Your task to perform on an android device: open chrome privacy settings Image 0: 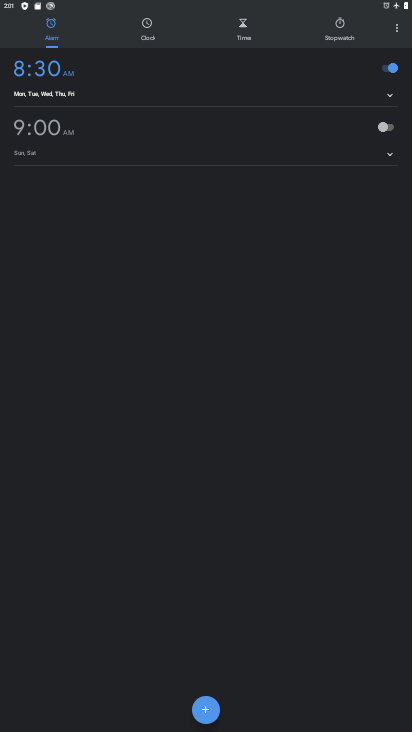
Step 0: press home button
Your task to perform on an android device: open chrome privacy settings Image 1: 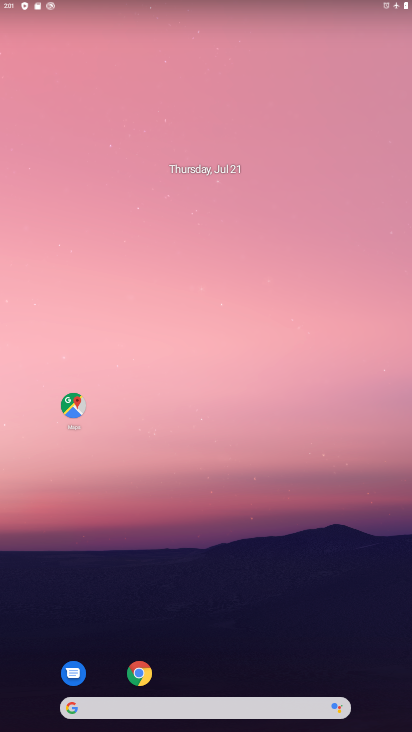
Step 1: click (140, 669)
Your task to perform on an android device: open chrome privacy settings Image 2: 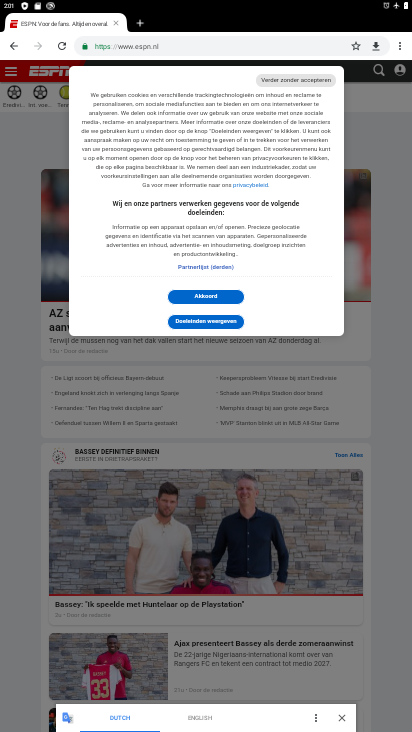
Step 2: click (401, 48)
Your task to perform on an android device: open chrome privacy settings Image 3: 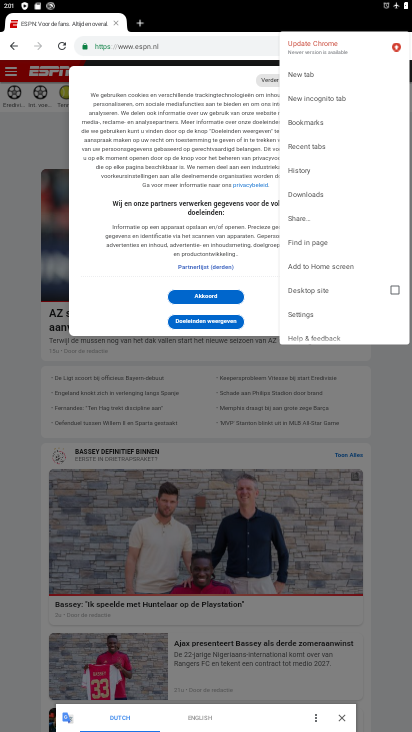
Step 3: click (312, 317)
Your task to perform on an android device: open chrome privacy settings Image 4: 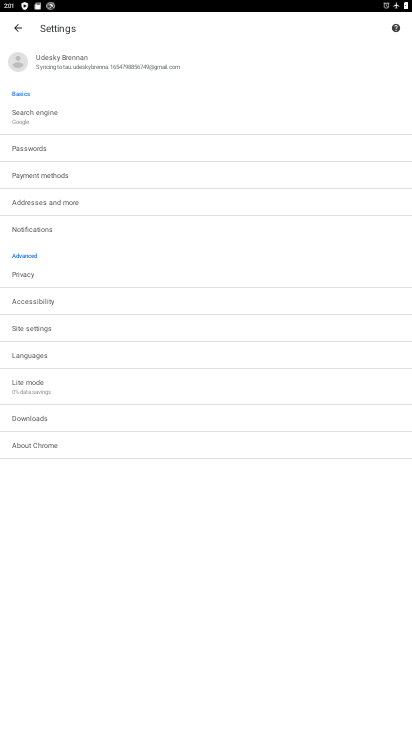
Step 4: click (27, 267)
Your task to perform on an android device: open chrome privacy settings Image 5: 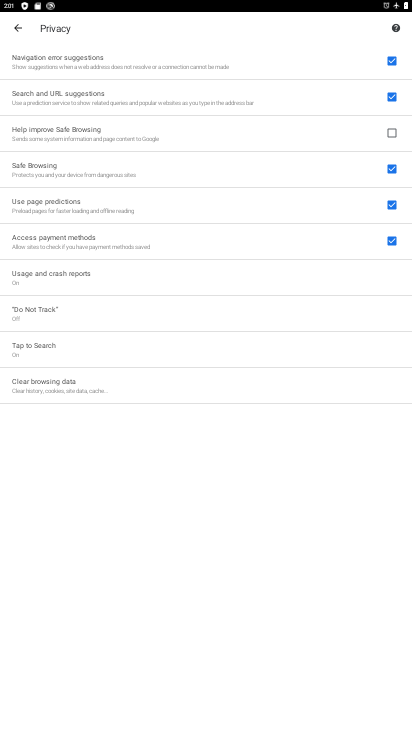
Step 5: task complete